Your task to perform on an android device: turn on priority inbox in the gmail app Image 0: 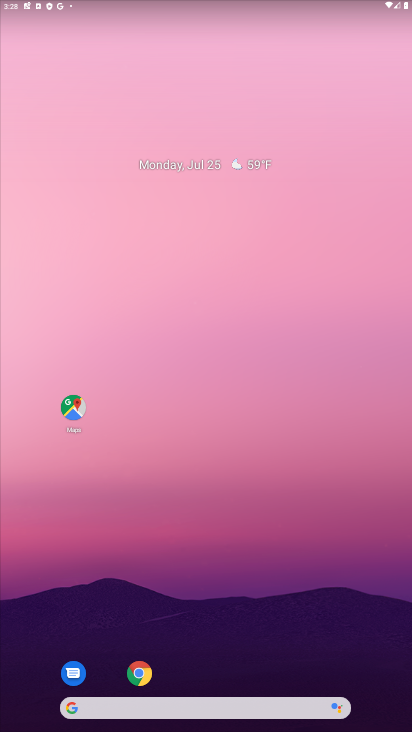
Step 0: drag from (172, 686) to (145, 187)
Your task to perform on an android device: turn on priority inbox in the gmail app Image 1: 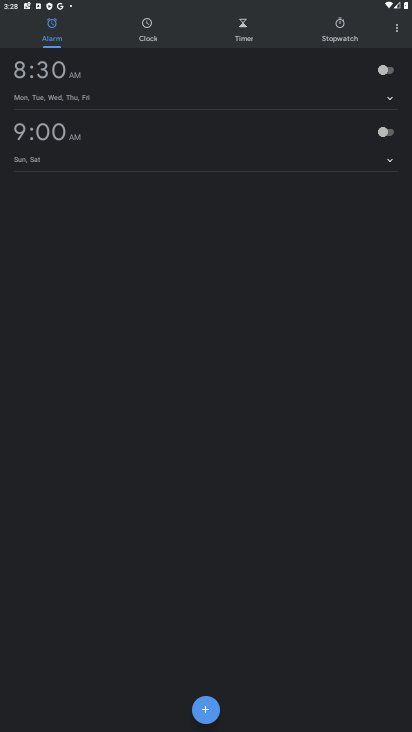
Step 1: press home button
Your task to perform on an android device: turn on priority inbox in the gmail app Image 2: 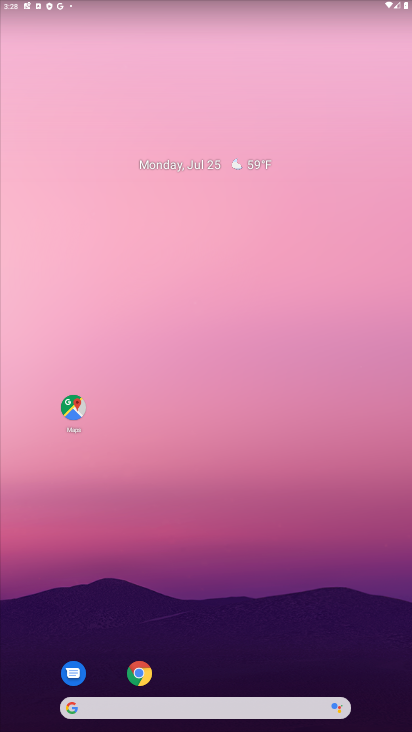
Step 2: drag from (190, 669) to (199, 35)
Your task to perform on an android device: turn on priority inbox in the gmail app Image 3: 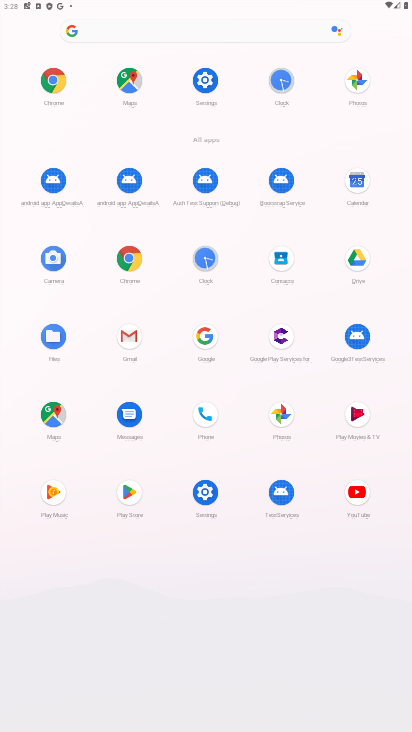
Step 3: click (130, 328)
Your task to perform on an android device: turn on priority inbox in the gmail app Image 4: 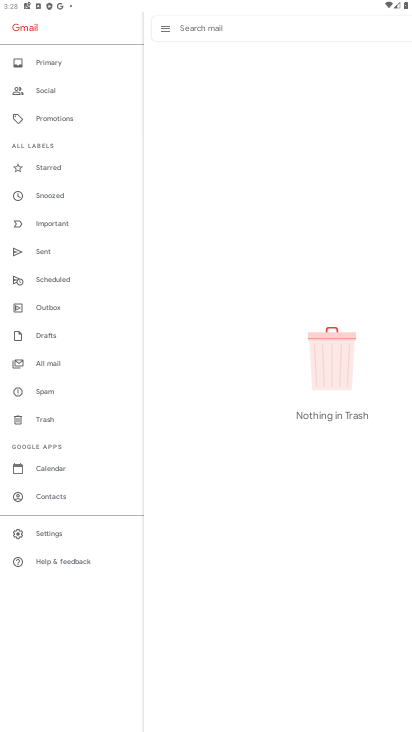
Step 4: click (55, 527)
Your task to perform on an android device: turn on priority inbox in the gmail app Image 5: 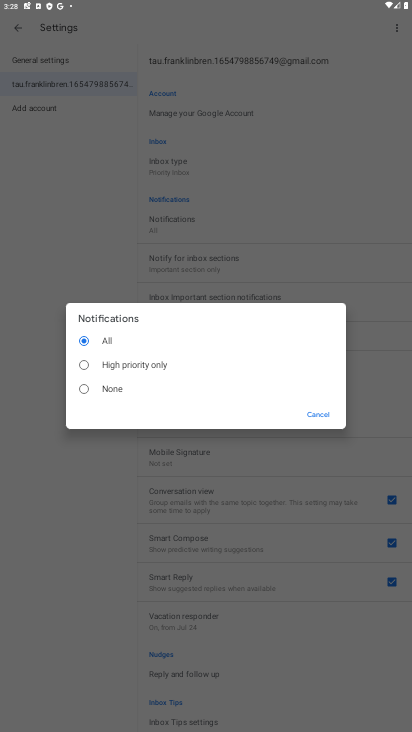
Step 5: click (323, 416)
Your task to perform on an android device: turn on priority inbox in the gmail app Image 6: 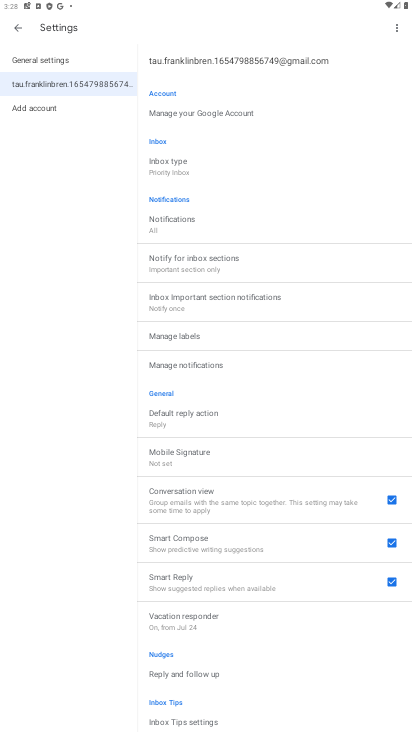
Step 6: task complete